Your task to perform on an android device: find snoozed emails in the gmail app Image 0: 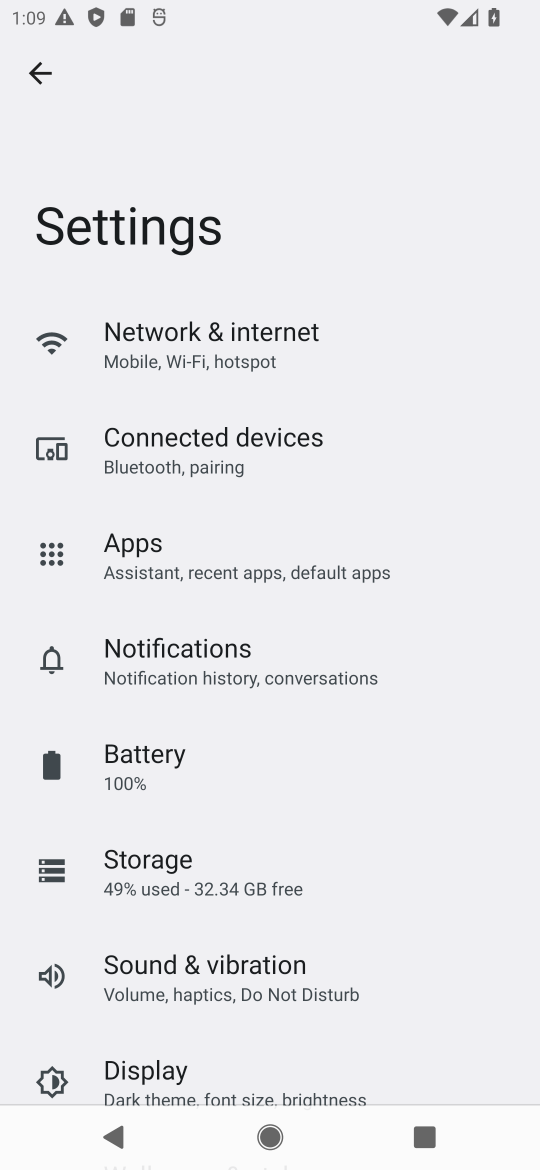
Step 0: press back button
Your task to perform on an android device: find snoozed emails in the gmail app Image 1: 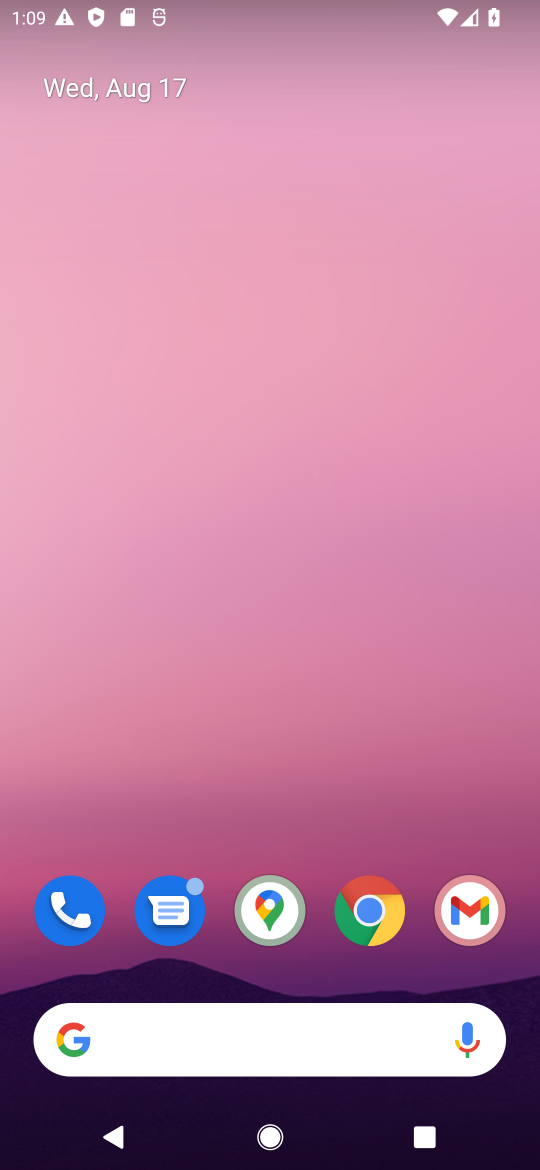
Step 1: click (462, 903)
Your task to perform on an android device: find snoozed emails in the gmail app Image 2: 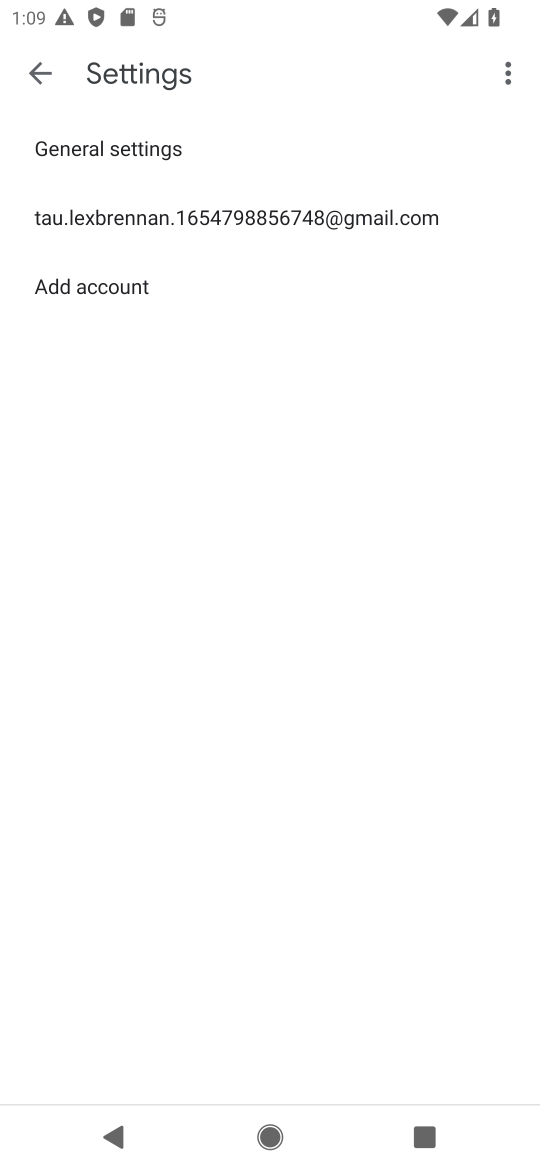
Step 2: press back button
Your task to perform on an android device: find snoozed emails in the gmail app Image 3: 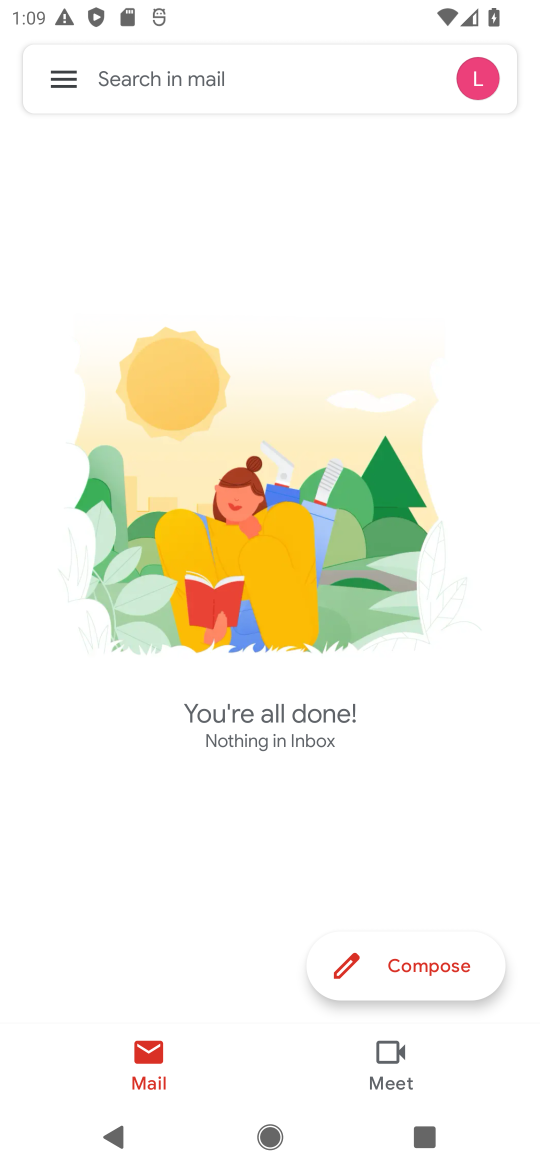
Step 3: click (45, 73)
Your task to perform on an android device: find snoozed emails in the gmail app Image 4: 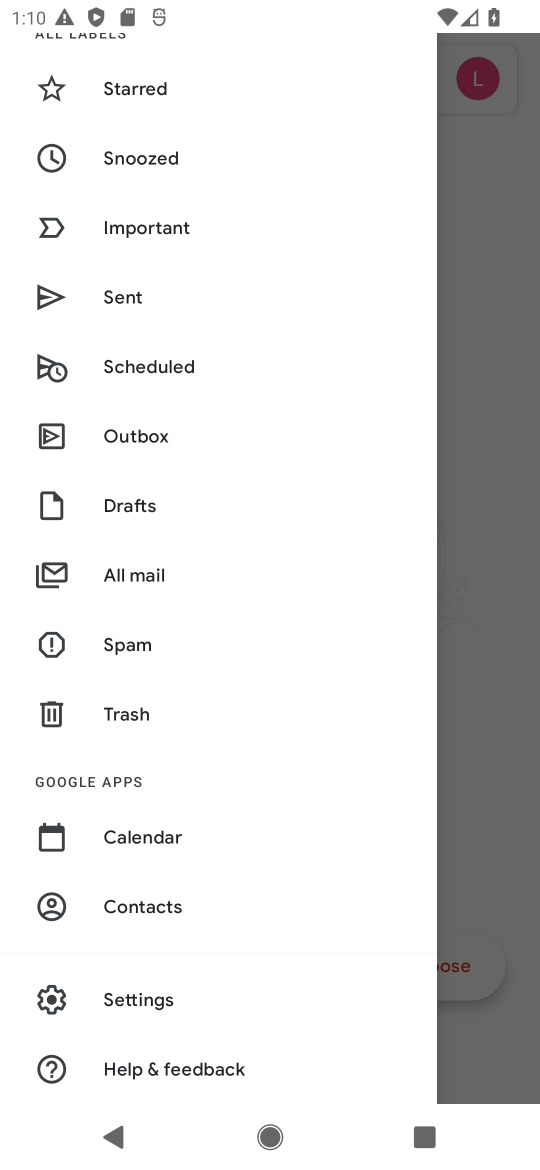
Step 4: click (163, 166)
Your task to perform on an android device: find snoozed emails in the gmail app Image 5: 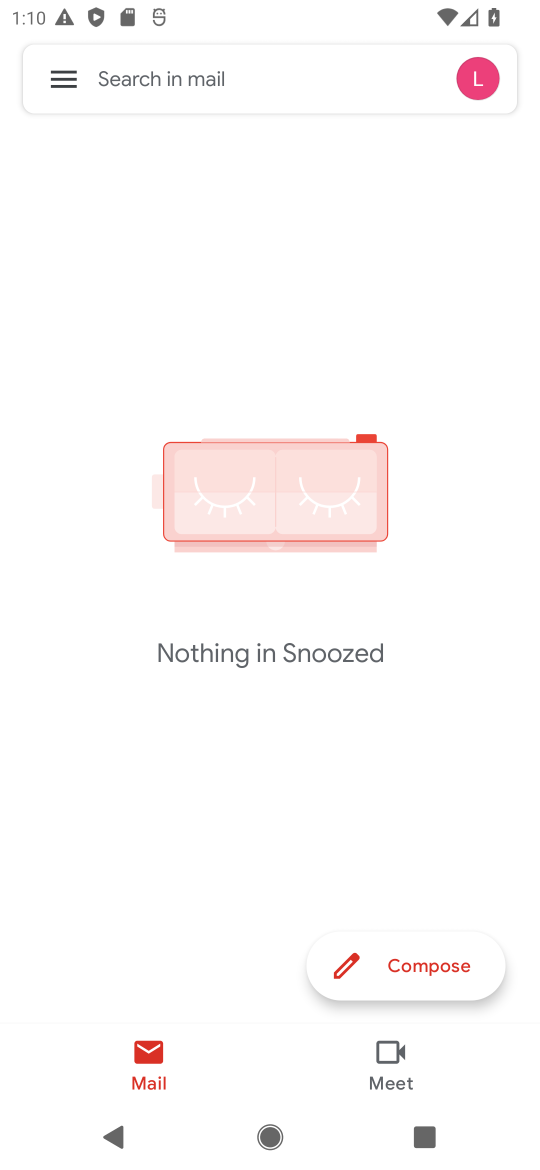
Step 5: task complete